Your task to perform on an android device: turn off airplane mode Image 0: 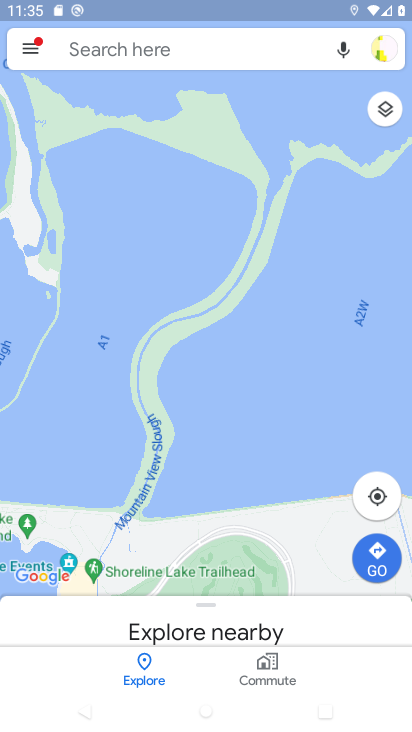
Step 0: press home button
Your task to perform on an android device: turn off airplane mode Image 1: 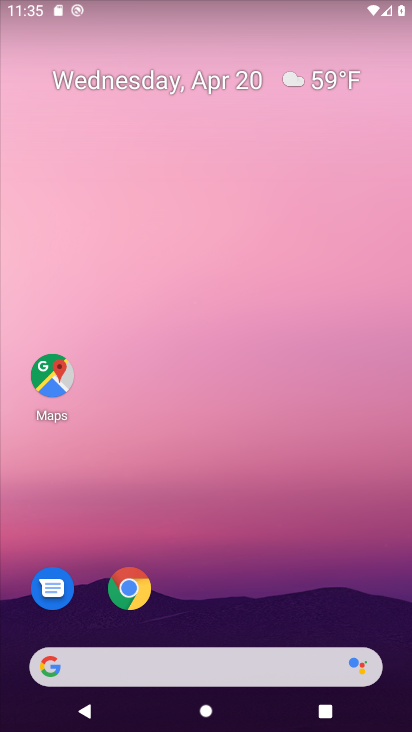
Step 1: drag from (382, 611) to (398, 229)
Your task to perform on an android device: turn off airplane mode Image 2: 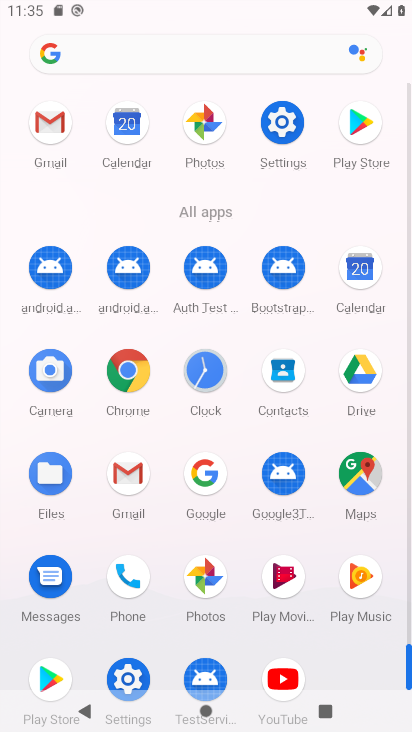
Step 2: click (407, 637)
Your task to perform on an android device: turn off airplane mode Image 3: 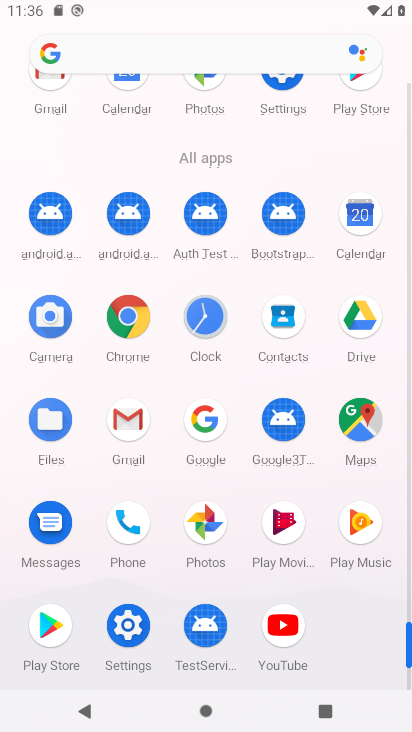
Step 3: click (128, 626)
Your task to perform on an android device: turn off airplane mode Image 4: 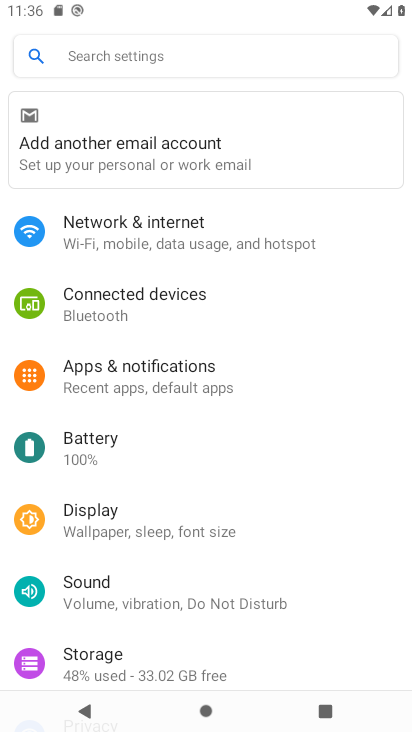
Step 4: click (125, 227)
Your task to perform on an android device: turn off airplane mode Image 5: 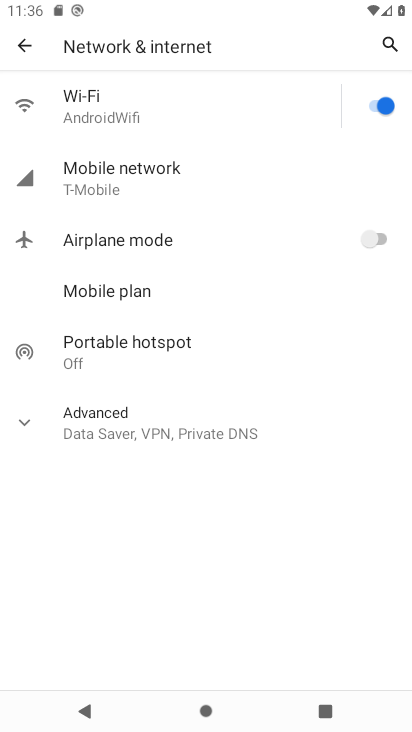
Step 5: task complete